Your task to perform on an android device: toggle data saver in the chrome app Image 0: 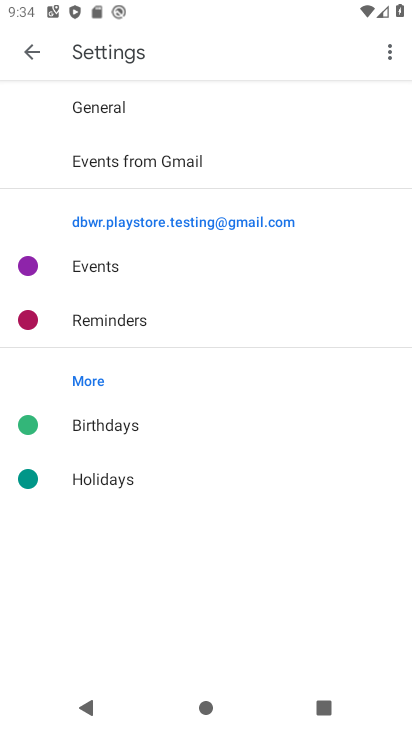
Step 0: press back button
Your task to perform on an android device: toggle data saver in the chrome app Image 1: 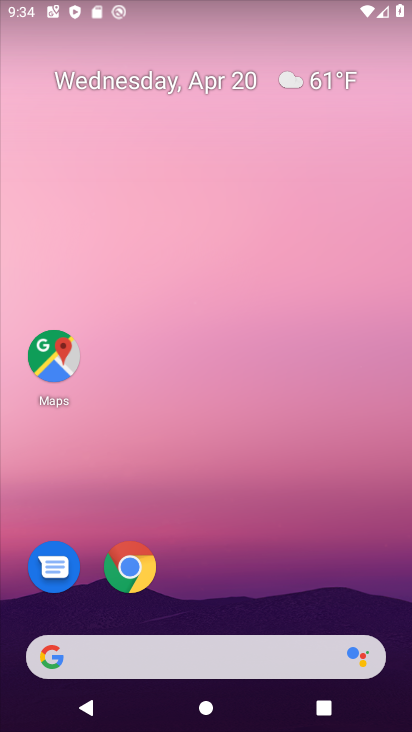
Step 1: click (142, 557)
Your task to perform on an android device: toggle data saver in the chrome app Image 2: 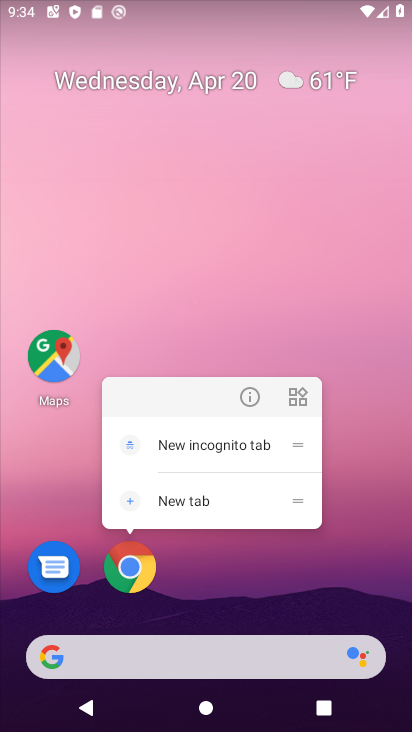
Step 2: click (126, 576)
Your task to perform on an android device: toggle data saver in the chrome app Image 3: 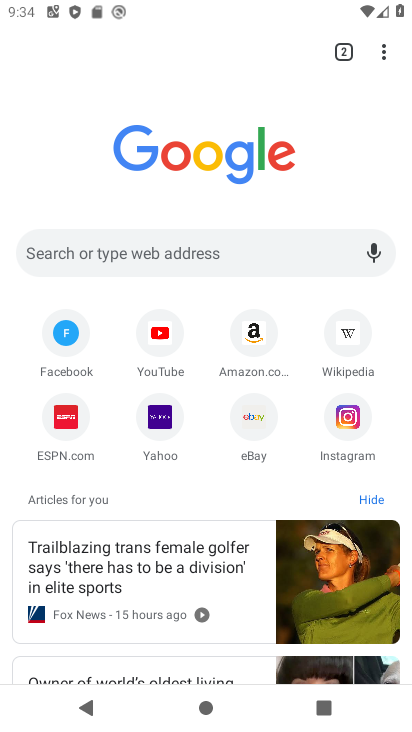
Step 3: drag from (387, 46) to (214, 496)
Your task to perform on an android device: toggle data saver in the chrome app Image 4: 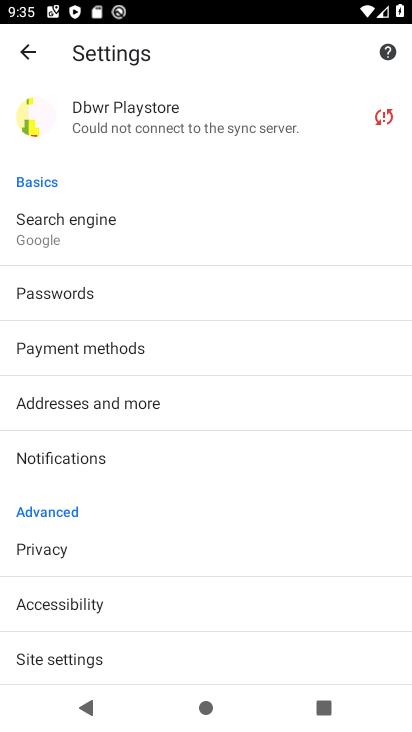
Step 4: drag from (169, 573) to (299, 122)
Your task to perform on an android device: toggle data saver in the chrome app Image 5: 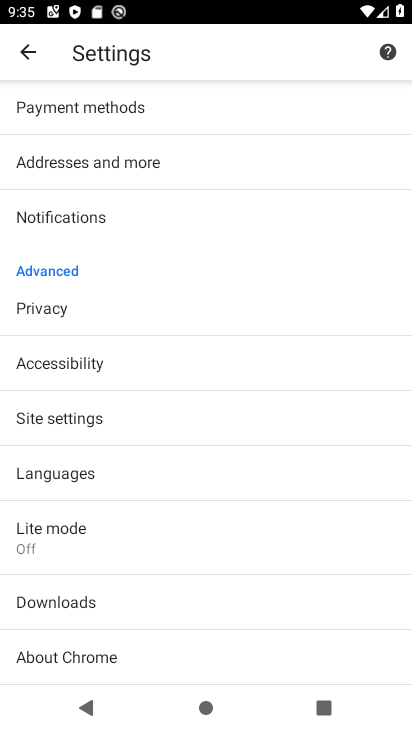
Step 5: click (86, 541)
Your task to perform on an android device: toggle data saver in the chrome app Image 6: 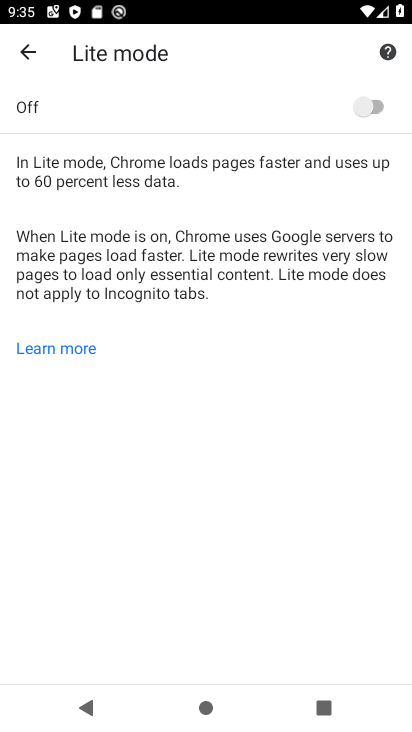
Step 6: click (369, 105)
Your task to perform on an android device: toggle data saver in the chrome app Image 7: 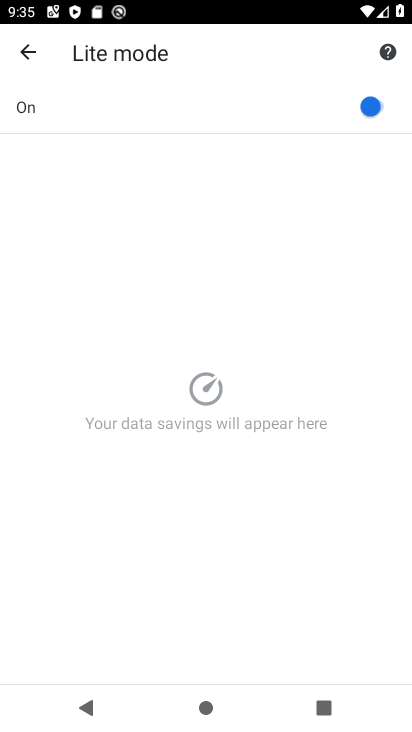
Step 7: task complete